Your task to perform on an android device: change notification settings in the gmail app Image 0: 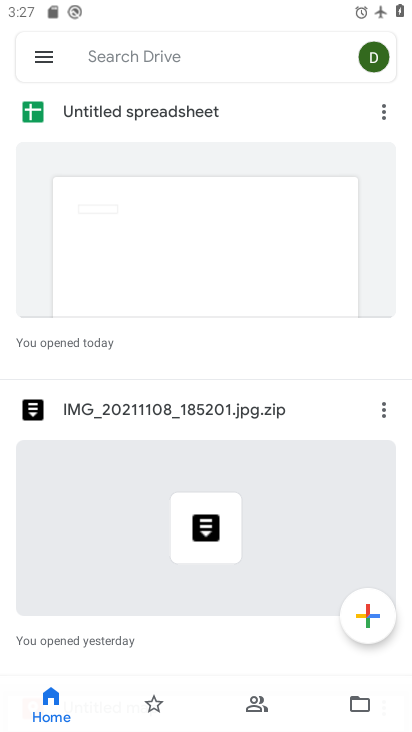
Step 0: press home button
Your task to perform on an android device: change notification settings in the gmail app Image 1: 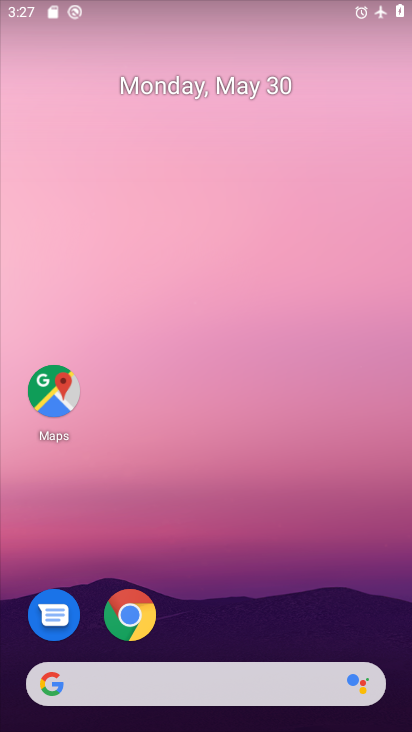
Step 1: drag from (197, 531) to (247, 0)
Your task to perform on an android device: change notification settings in the gmail app Image 2: 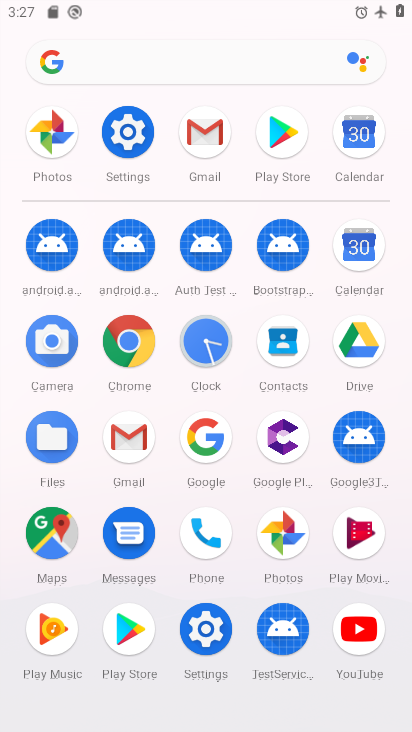
Step 2: click (209, 126)
Your task to perform on an android device: change notification settings in the gmail app Image 3: 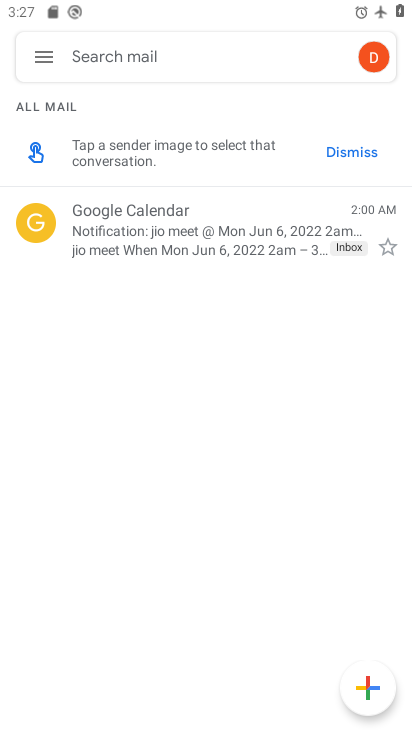
Step 3: click (48, 51)
Your task to perform on an android device: change notification settings in the gmail app Image 4: 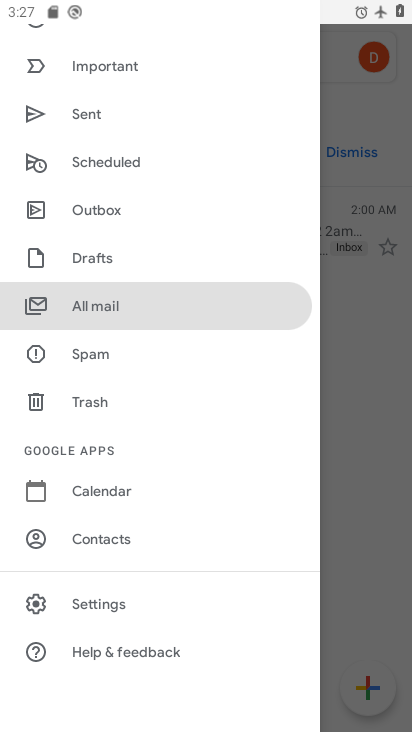
Step 4: click (96, 597)
Your task to perform on an android device: change notification settings in the gmail app Image 5: 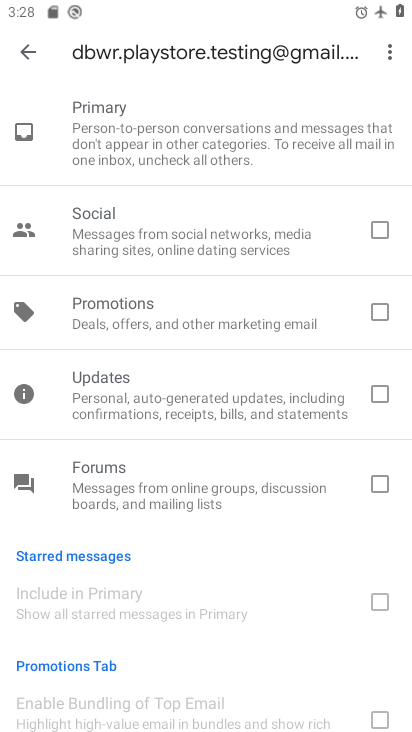
Step 5: drag from (297, 229) to (269, 556)
Your task to perform on an android device: change notification settings in the gmail app Image 6: 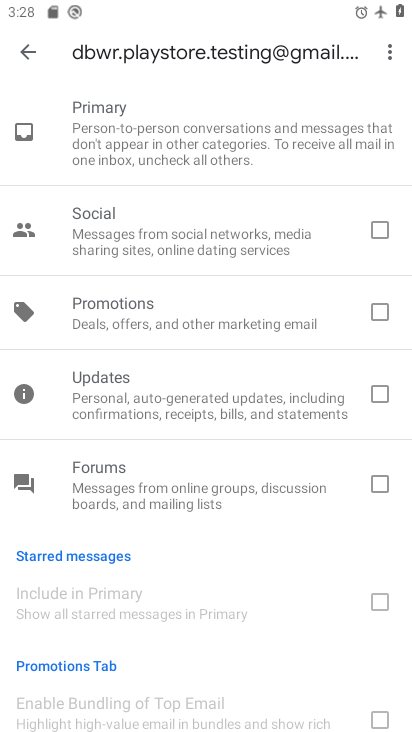
Step 6: drag from (135, 157) to (145, 346)
Your task to perform on an android device: change notification settings in the gmail app Image 7: 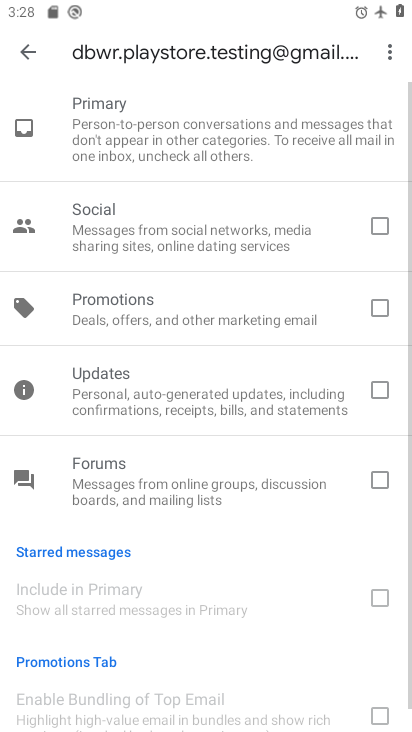
Step 7: click (24, 35)
Your task to perform on an android device: change notification settings in the gmail app Image 8: 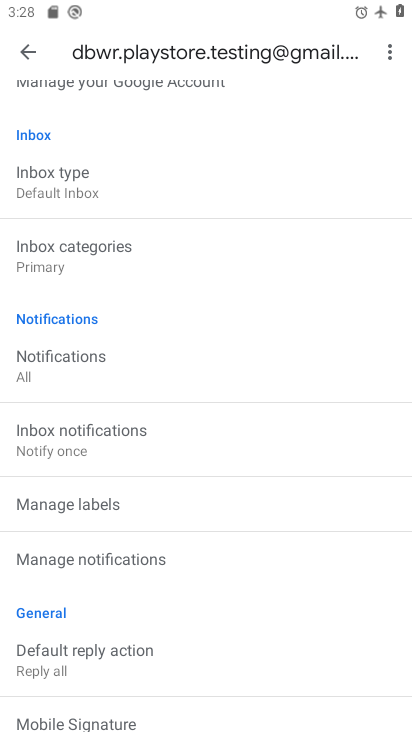
Step 8: click (206, 555)
Your task to perform on an android device: change notification settings in the gmail app Image 9: 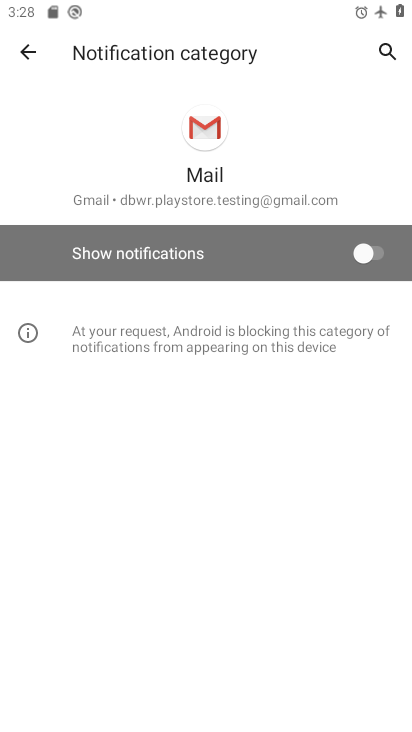
Step 9: click (360, 252)
Your task to perform on an android device: change notification settings in the gmail app Image 10: 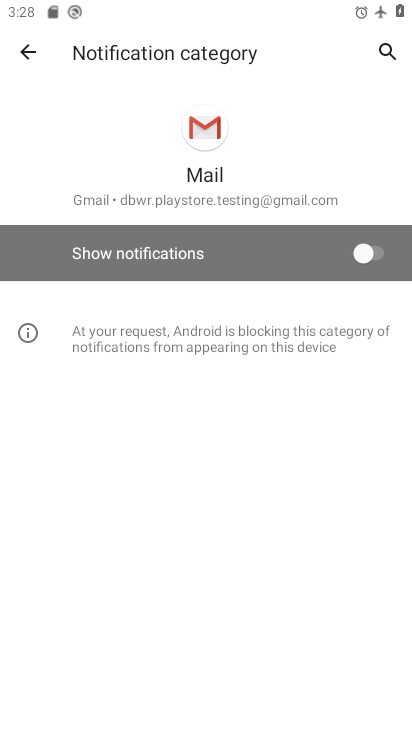
Step 10: click (365, 243)
Your task to perform on an android device: change notification settings in the gmail app Image 11: 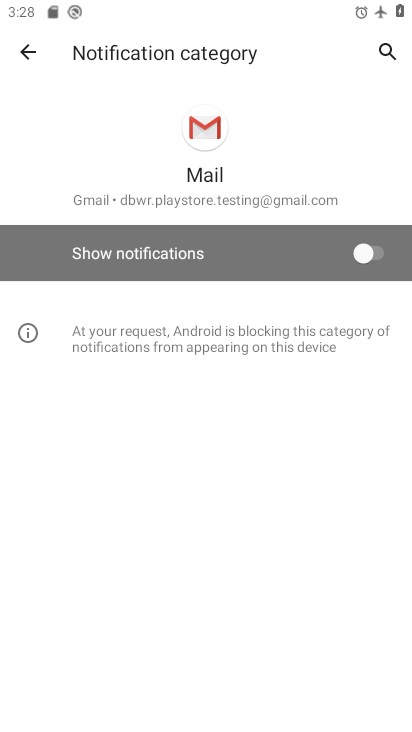
Step 11: click (32, 49)
Your task to perform on an android device: change notification settings in the gmail app Image 12: 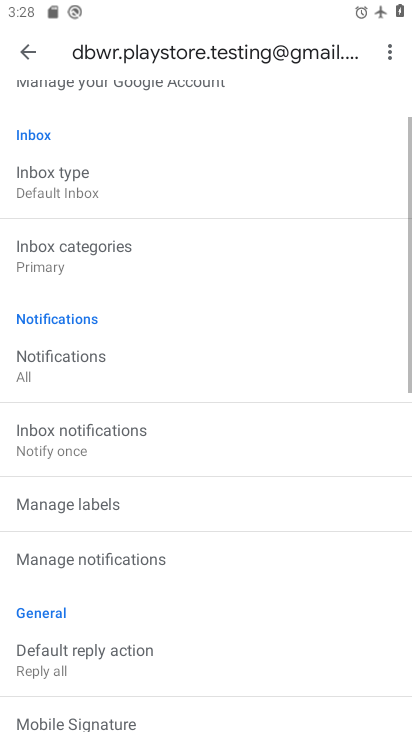
Step 12: click (32, 49)
Your task to perform on an android device: change notification settings in the gmail app Image 13: 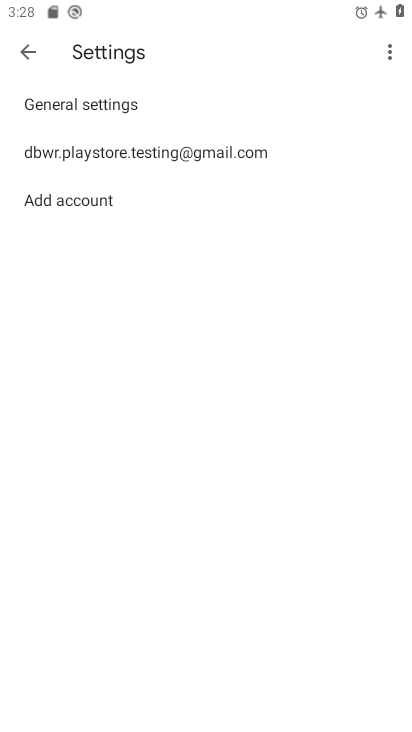
Step 13: click (89, 91)
Your task to perform on an android device: change notification settings in the gmail app Image 14: 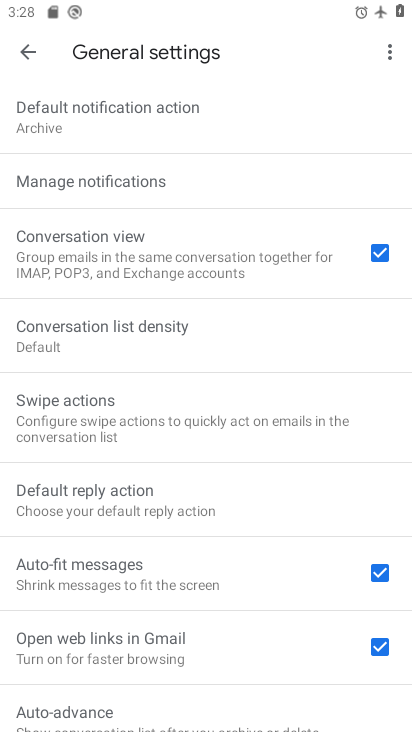
Step 14: click (197, 187)
Your task to perform on an android device: change notification settings in the gmail app Image 15: 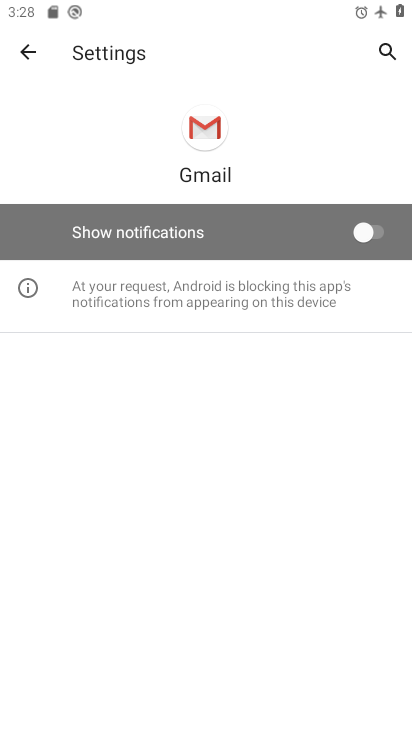
Step 15: click (368, 231)
Your task to perform on an android device: change notification settings in the gmail app Image 16: 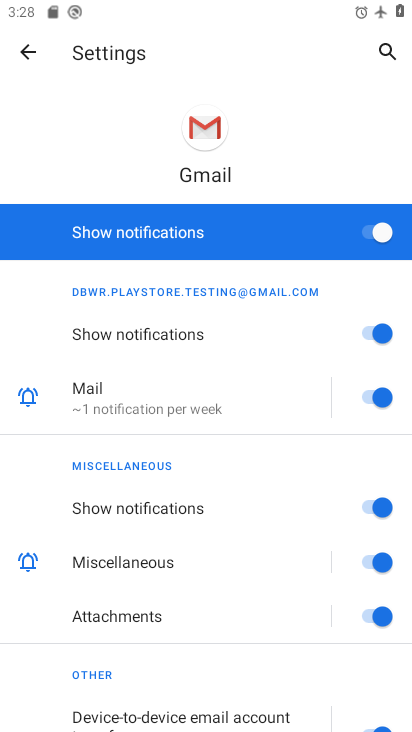
Step 16: task complete